Your task to perform on an android device: turn vacation reply on in the gmail app Image 0: 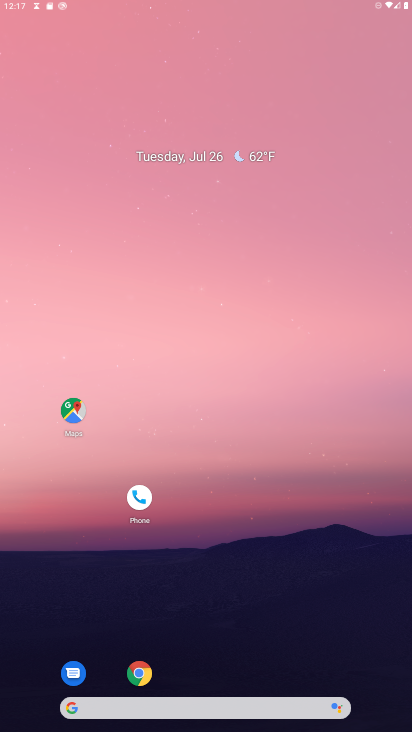
Step 0: press home button
Your task to perform on an android device: turn vacation reply on in the gmail app Image 1: 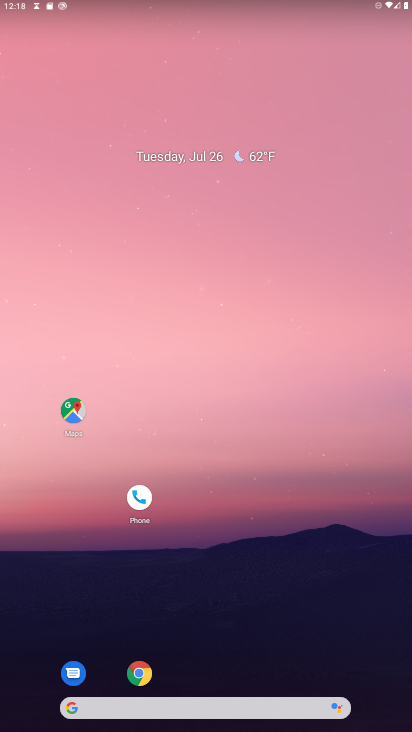
Step 1: drag from (214, 647) to (238, 183)
Your task to perform on an android device: turn vacation reply on in the gmail app Image 2: 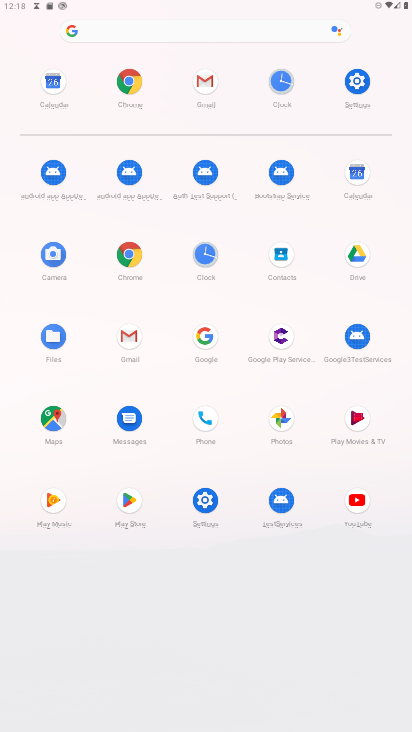
Step 2: click (207, 88)
Your task to perform on an android device: turn vacation reply on in the gmail app Image 3: 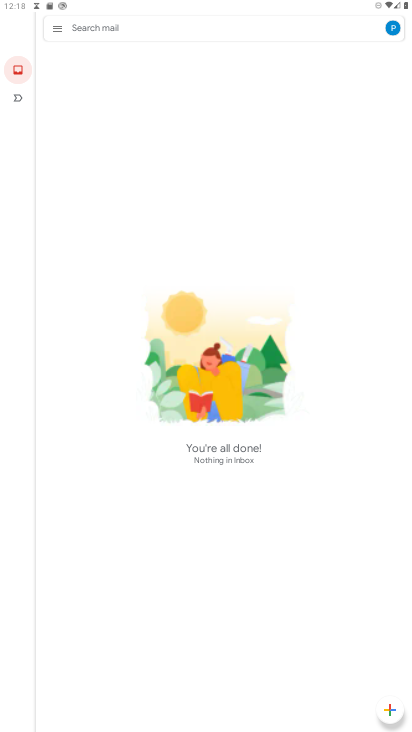
Step 3: click (58, 27)
Your task to perform on an android device: turn vacation reply on in the gmail app Image 4: 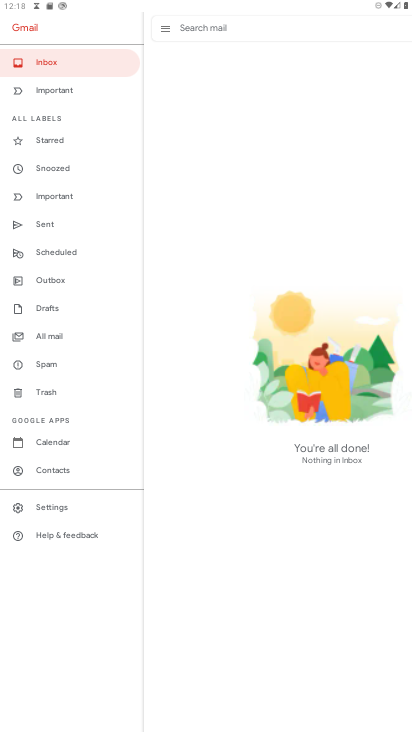
Step 4: click (55, 511)
Your task to perform on an android device: turn vacation reply on in the gmail app Image 5: 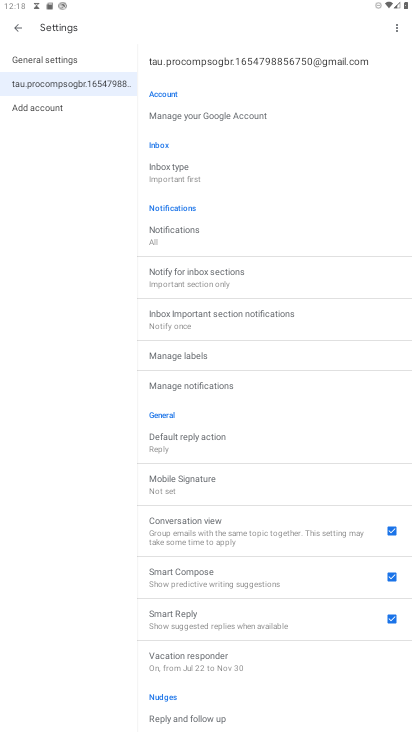
Step 5: click (195, 658)
Your task to perform on an android device: turn vacation reply on in the gmail app Image 6: 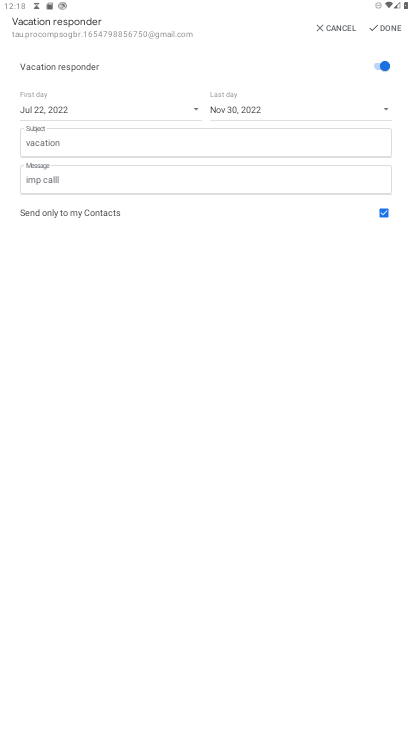
Step 6: task complete